Your task to perform on an android device: change timer sound Image 0: 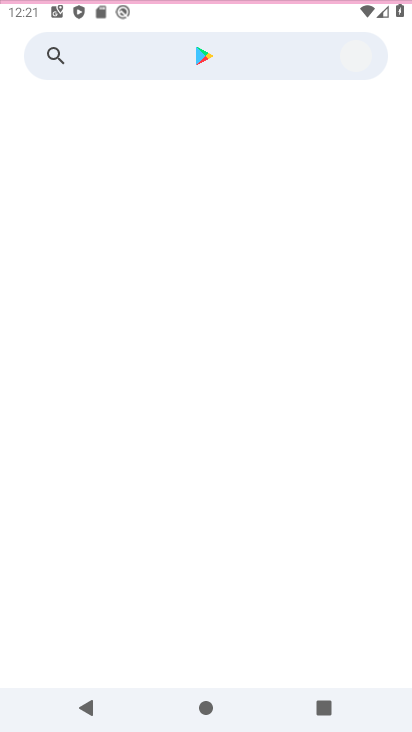
Step 0: click (70, 331)
Your task to perform on an android device: change timer sound Image 1: 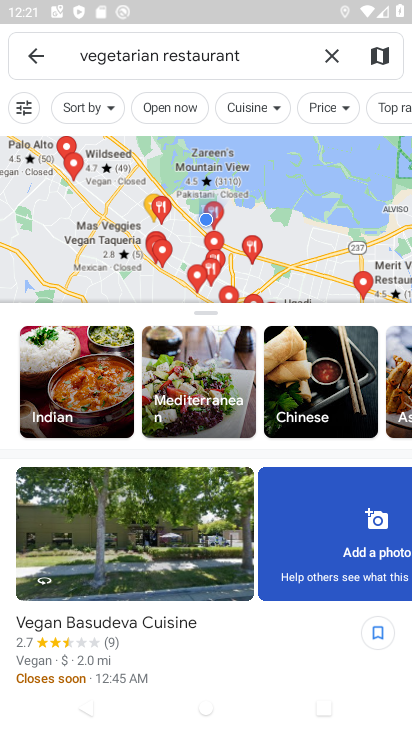
Step 1: press home button
Your task to perform on an android device: change timer sound Image 2: 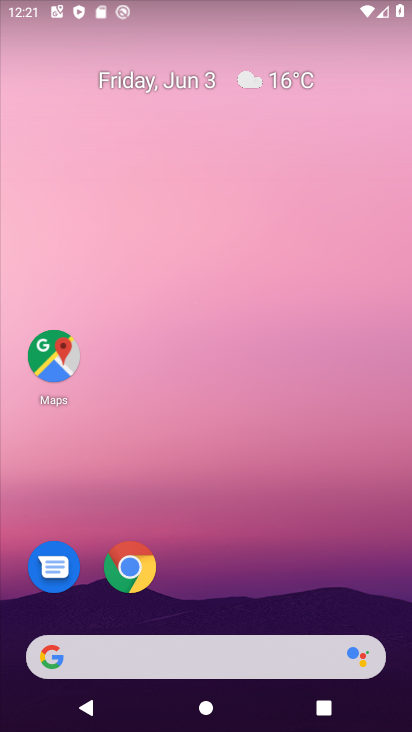
Step 2: drag from (337, 342) to (381, 348)
Your task to perform on an android device: change timer sound Image 3: 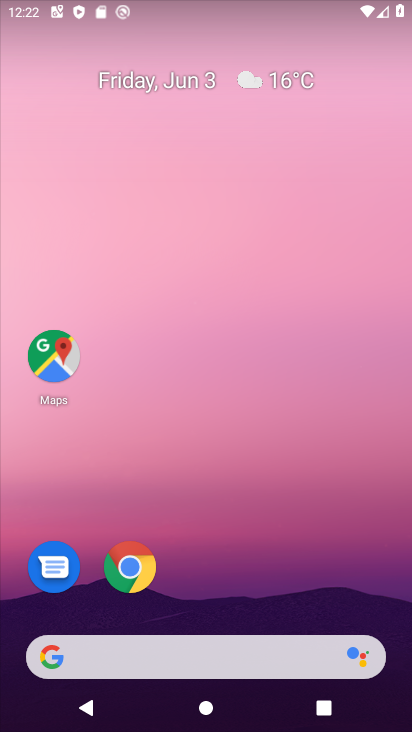
Step 3: drag from (358, 590) to (402, 177)
Your task to perform on an android device: change timer sound Image 4: 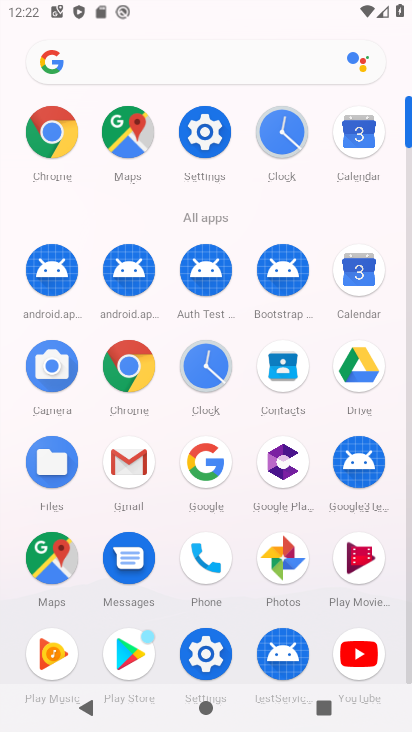
Step 4: click (289, 141)
Your task to perform on an android device: change timer sound Image 5: 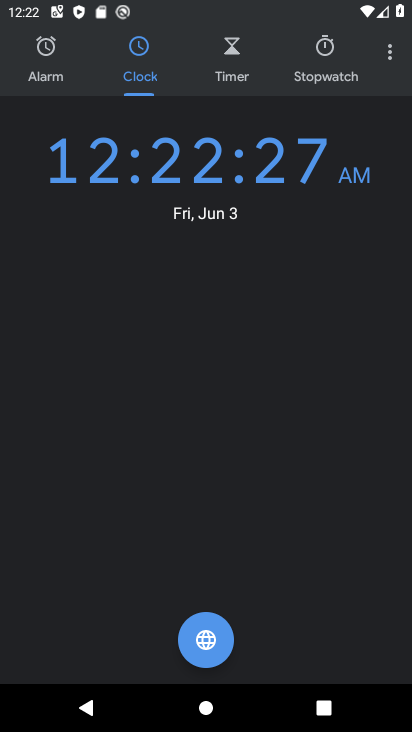
Step 5: click (392, 54)
Your task to perform on an android device: change timer sound Image 6: 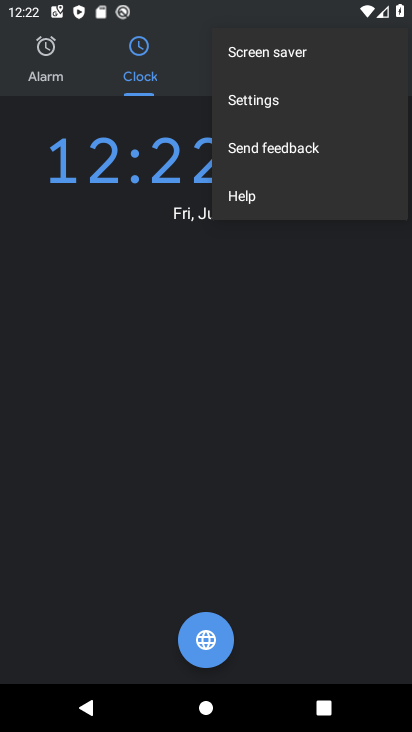
Step 6: click (291, 105)
Your task to perform on an android device: change timer sound Image 7: 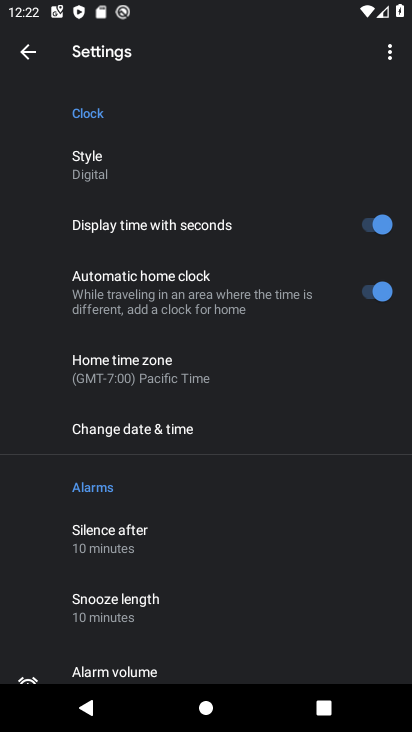
Step 7: drag from (293, 504) to (283, 246)
Your task to perform on an android device: change timer sound Image 8: 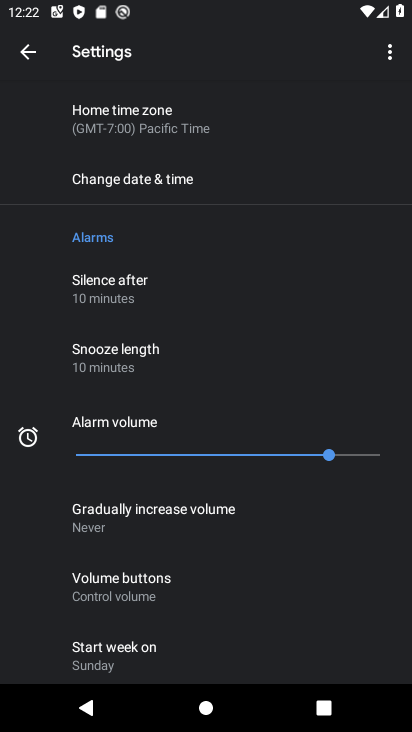
Step 8: drag from (289, 418) to (312, 154)
Your task to perform on an android device: change timer sound Image 9: 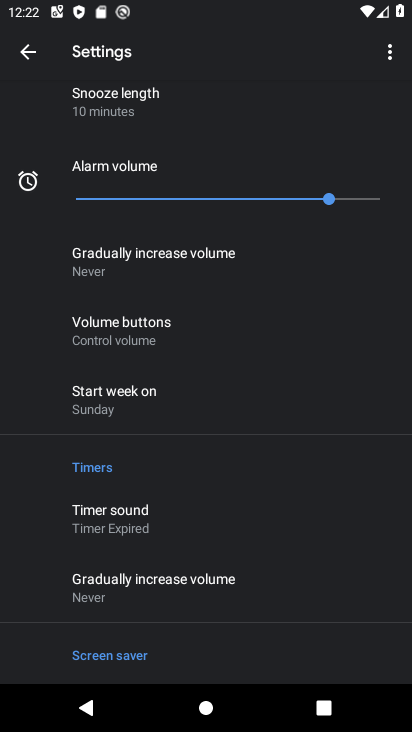
Step 9: click (237, 510)
Your task to perform on an android device: change timer sound Image 10: 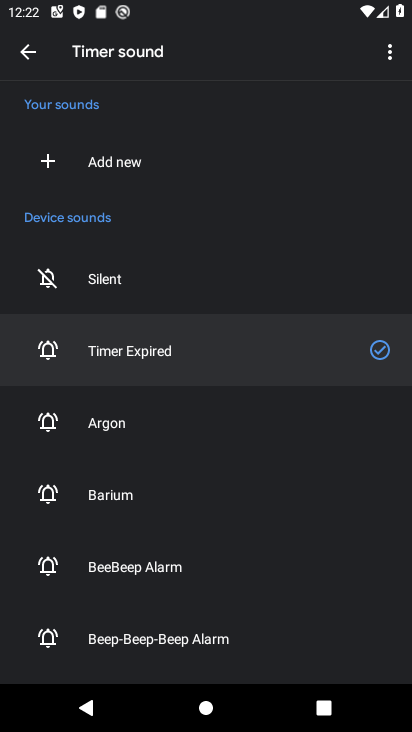
Step 10: click (225, 436)
Your task to perform on an android device: change timer sound Image 11: 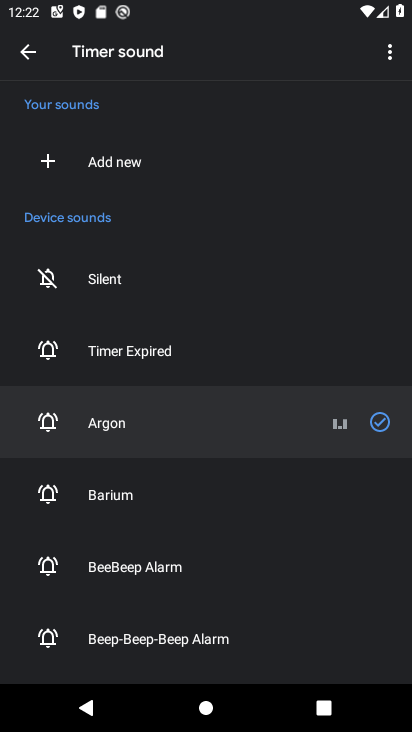
Step 11: task complete